Your task to perform on an android device: change the clock display to digital Image 0: 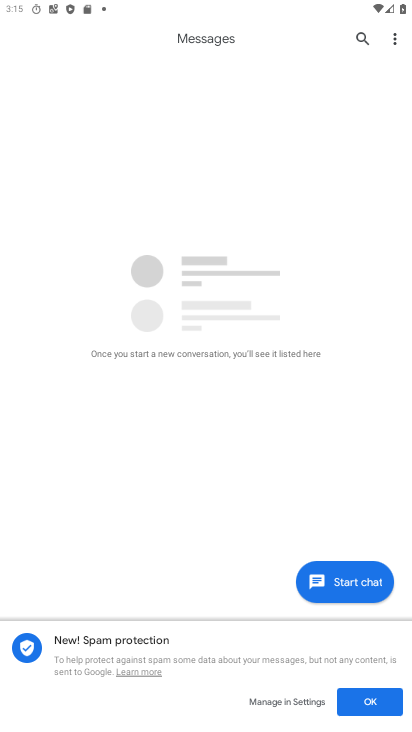
Step 0: press home button
Your task to perform on an android device: change the clock display to digital Image 1: 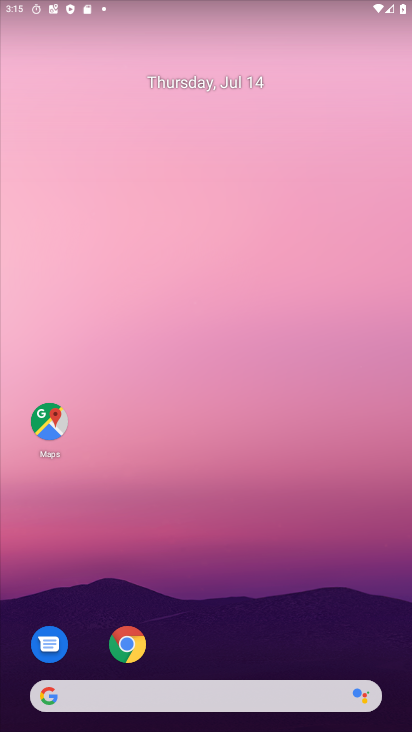
Step 1: drag from (29, 699) to (407, 98)
Your task to perform on an android device: change the clock display to digital Image 2: 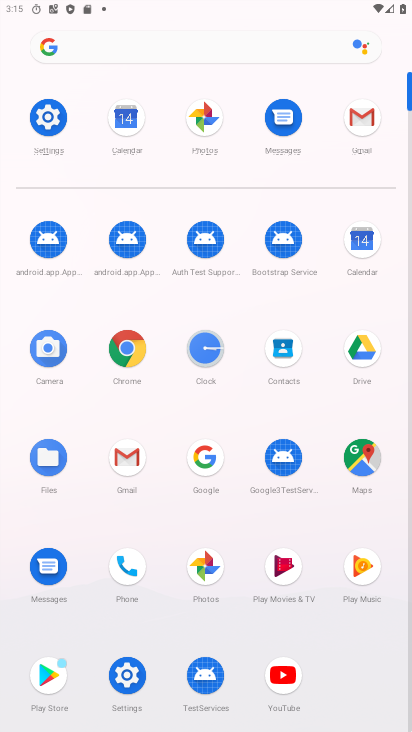
Step 2: click (187, 340)
Your task to perform on an android device: change the clock display to digital Image 3: 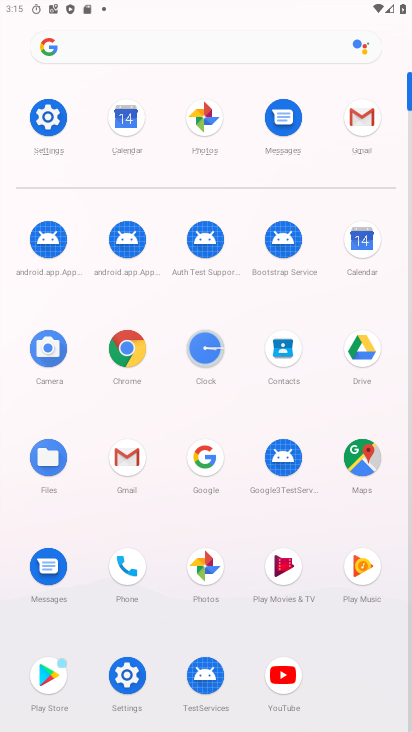
Step 3: click (215, 352)
Your task to perform on an android device: change the clock display to digital Image 4: 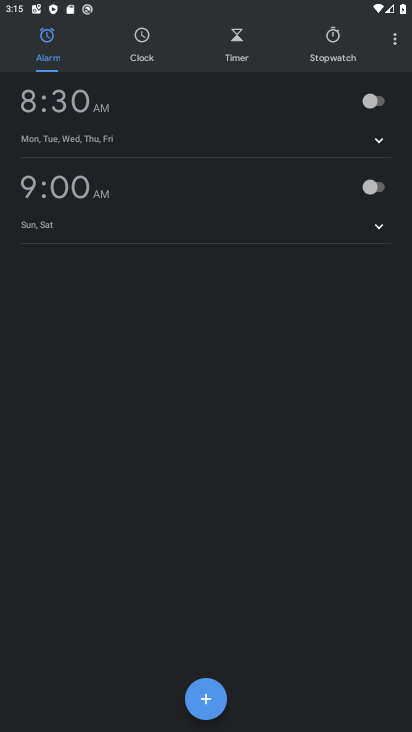
Step 4: click (142, 46)
Your task to perform on an android device: change the clock display to digital Image 5: 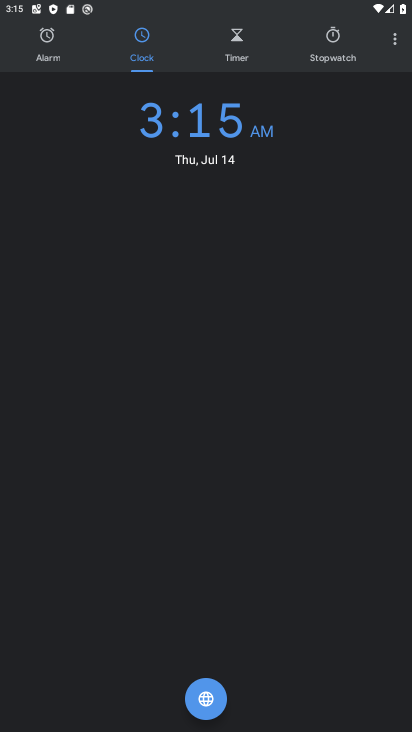
Step 5: click (391, 35)
Your task to perform on an android device: change the clock display to digital Image 6: 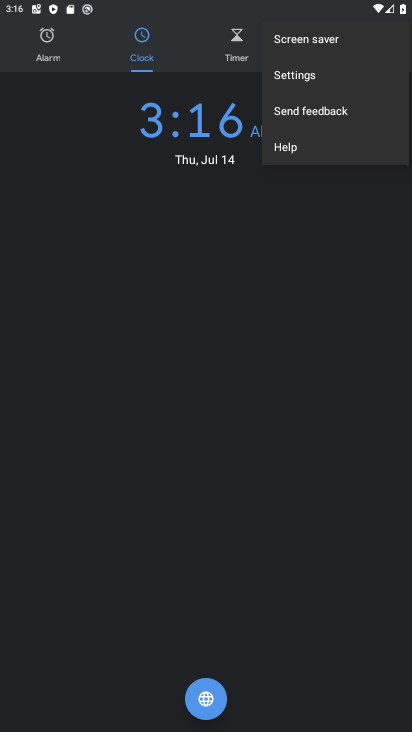
Step 6: click (309, 75)
Your task to perform on an android device: change the clock display to digital Image 7: 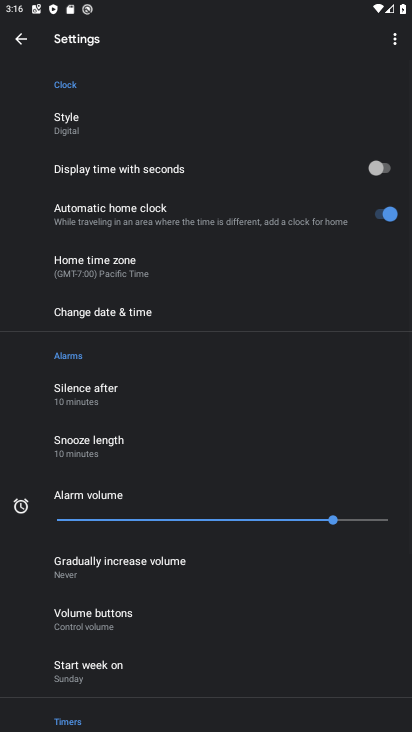
Step 7: click (91, 132)
Your task to perform on an android device: change the clock display to digital Image 8: 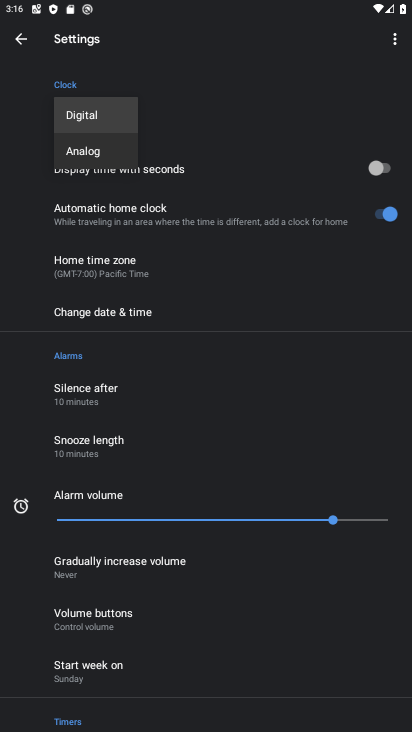
Step 8: click (96, 143)
Your task to perform on an android device: change the clock display to digital Image 9: 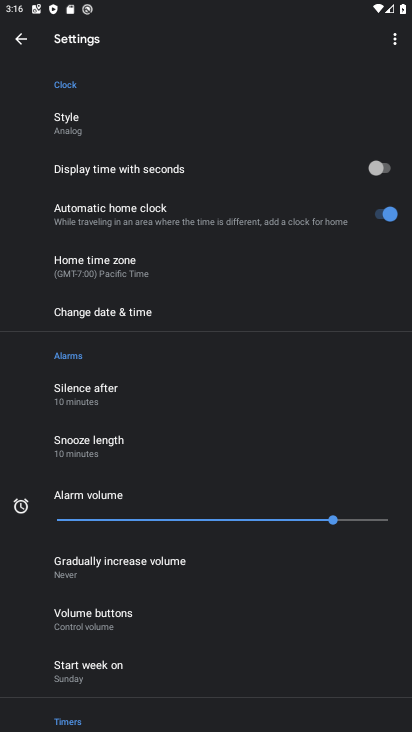
Step 9: click (94, 126)
Your task to perform on an android device: change the clock display to digital Image 10: 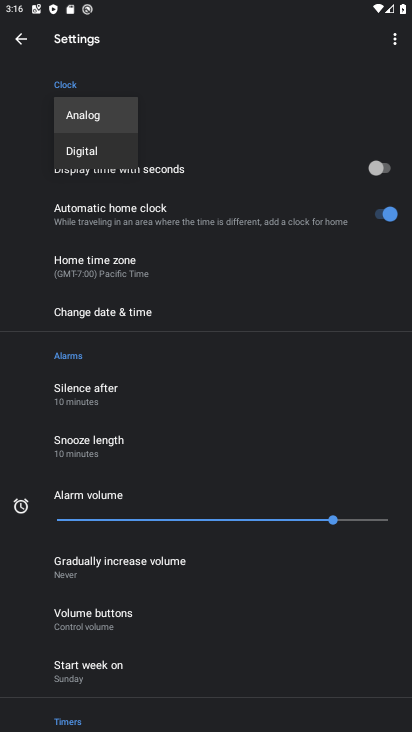
Step 10: click (91, 158)
Your task to perform on an android device: change the clock display to digital Image 11: 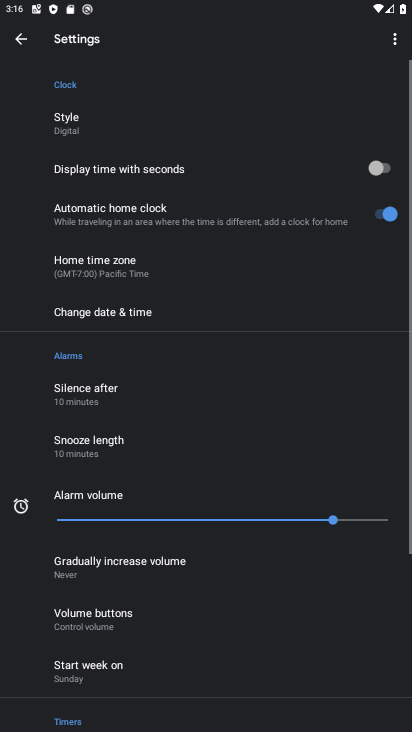
Step 11: task complete